Your task to perform on an android device: turn off location history Image 0: 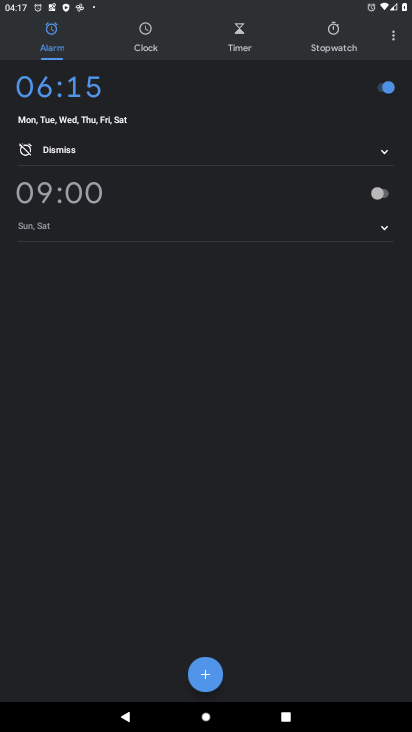
Step 0: press home button
Your task to perform on an android device: turn off location history Image 1: 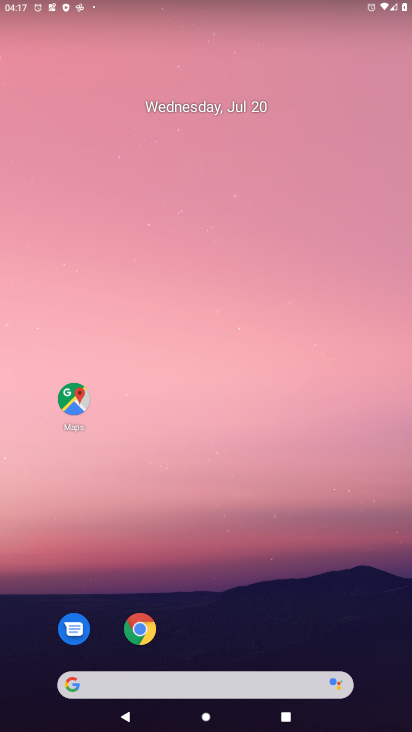
Step 1: click (75, 401)
Your task to perform on an android device: turn off location history Image 2: 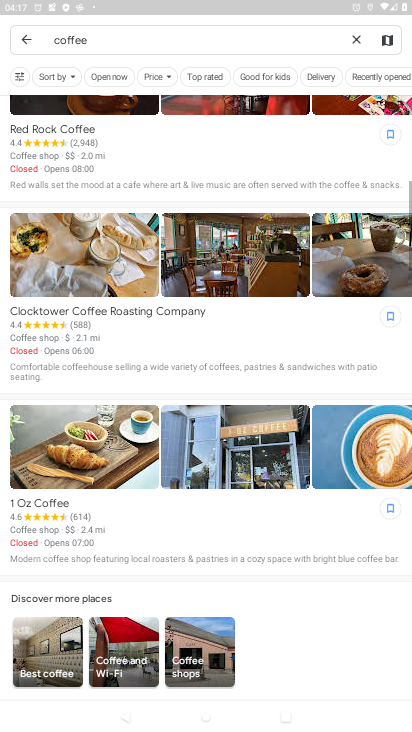
Step 2: click (353, 37)
Your task to perform on an android device: turn off location history Image 3: 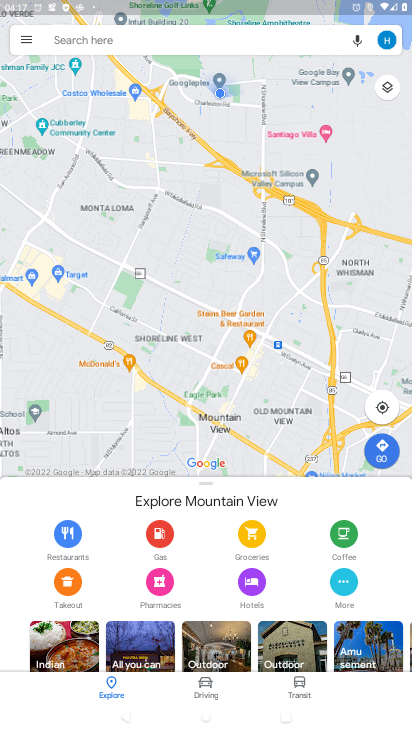
Step 3: click (26, 37)
Your task to perform on an android device: turn off location history Image 4: 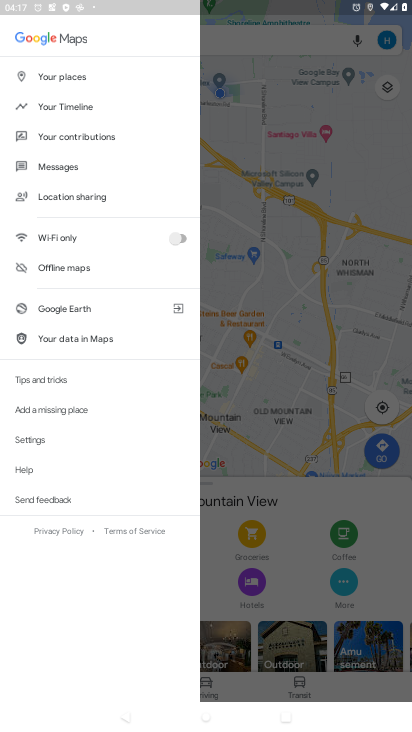
Step 4: click (31, 445)
Your task to perform on an android device: turn off location history Image 5: 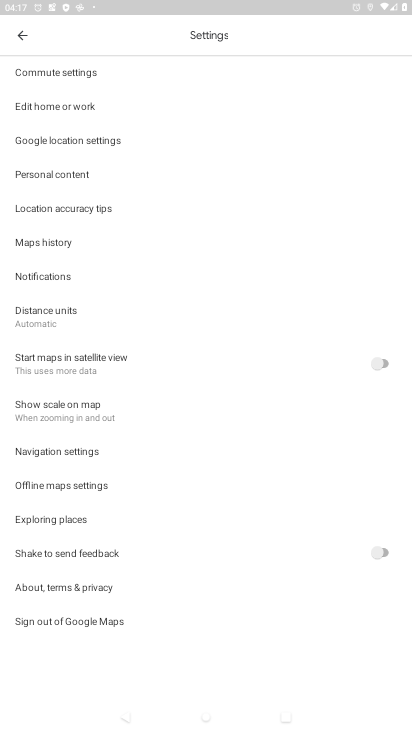
Step 5: click (45, 175)
Your task to perform on an android device: turn off location history Image 6: 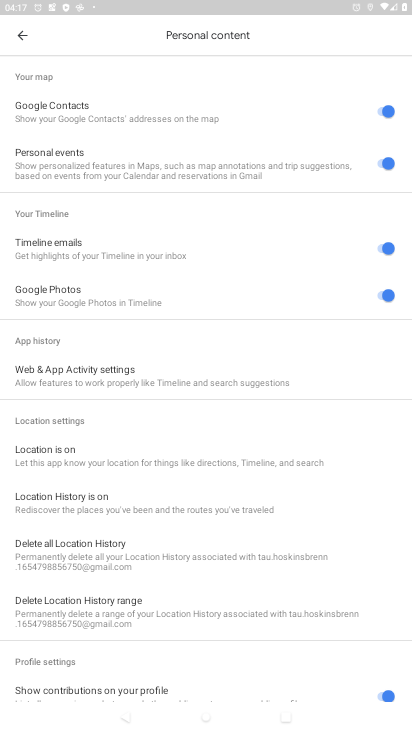
Step 6: click (51, 500)
Your task to perform on an android device: turn off location history Image 7: 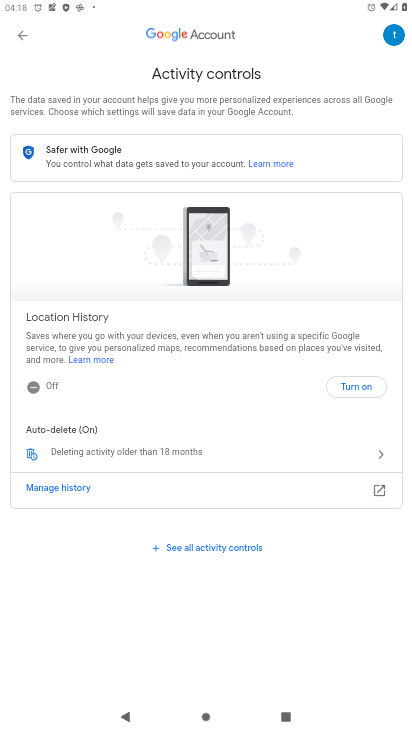
Step 7: task complete